Your task to perform on an android device: Search for seafood restaurants on Google Maps Image 0: 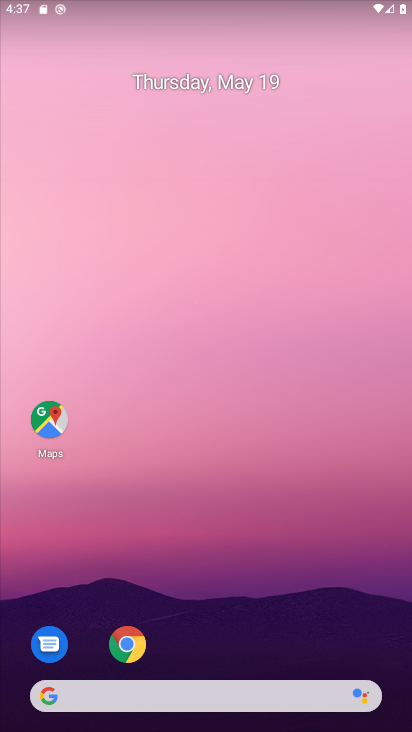
Step 0: press home button
Your task to perform on an android device: Search for seafood restaurants on Google Maps Image 1: 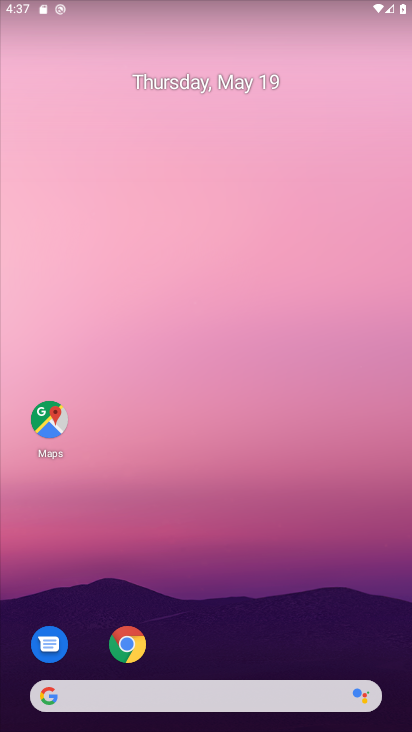
Step 1: click (132, 643)
Your task to perform on an android device: Search for seafood restaurants on Google Maps Image 2: 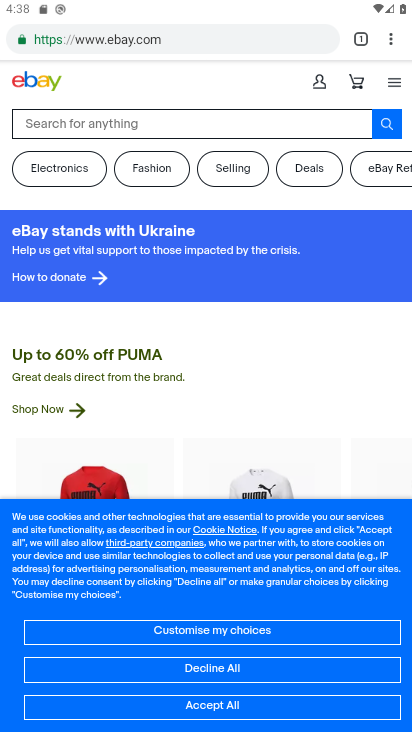
Step 2: press home button
Your task to perform on an android device: Search for seafood restaurants on Google Maps Image 3: 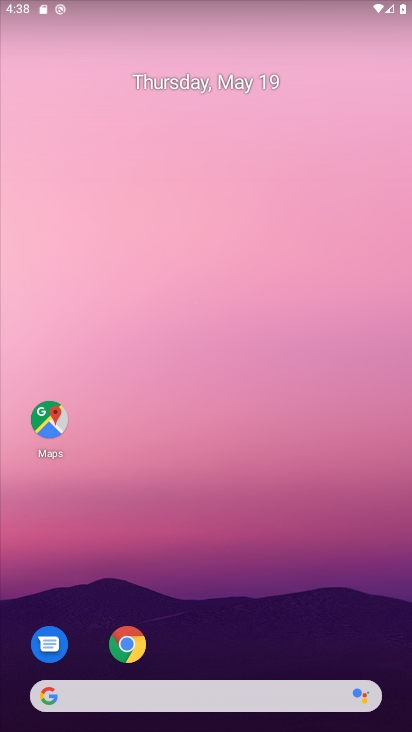
Step 3: click (35, 409)
Your task to perform on an android device: Search for seafood restaurants on Google Maps Image 4: 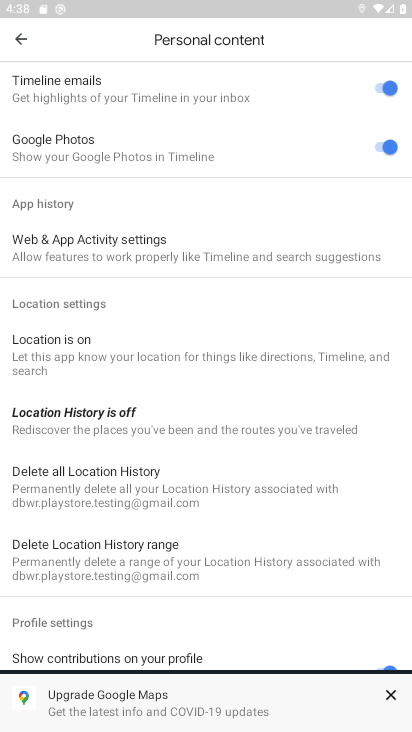
Step 4: click (22, 43)
Your task to perform on an android device: Search for seafood restaurants on Google Maps Image 5: 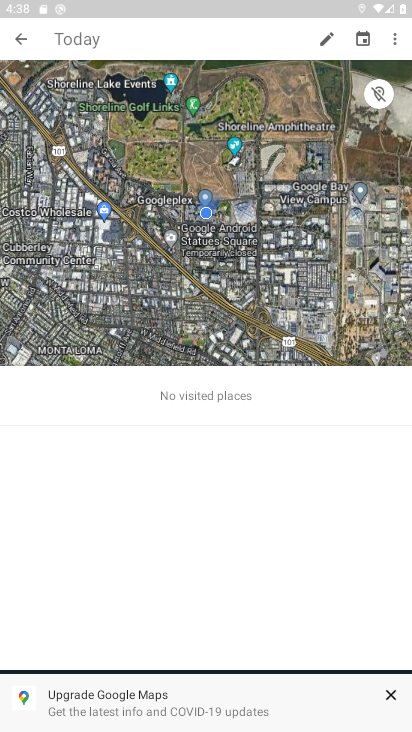
Step 5: click (22, 43)
Your task to perform on an android device: Search for seafood restaurants on Google Maps Image 6: 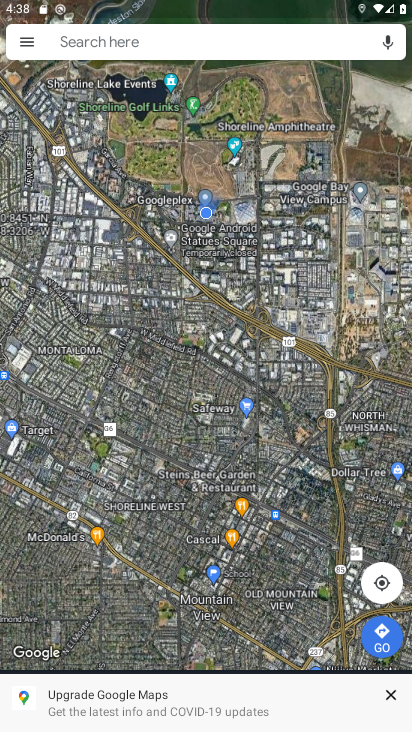
Step 6: click (127, 36)
Your task to perform on an android device: Search for seafood restaurants on Google Maps Image 7: 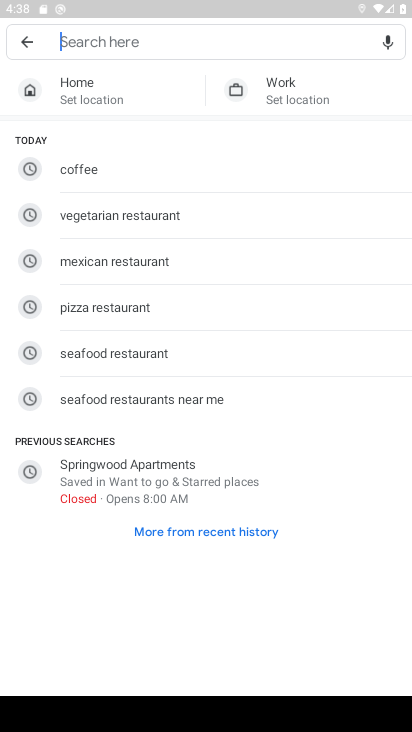
Step 7: type " seafood restaurants"
Your task to perform on an android device: Search for seafood restaurants on Google Maps Image 8: 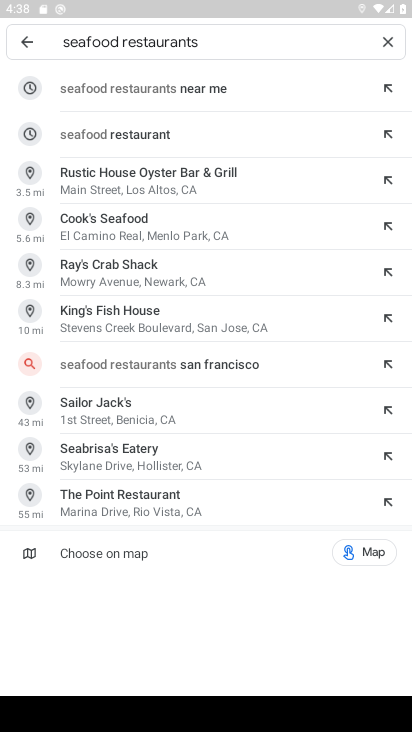
Step 8: click (124, 131)
Your task to perform on an android device: Search for seafood restaurants on Google Maps Image 9: 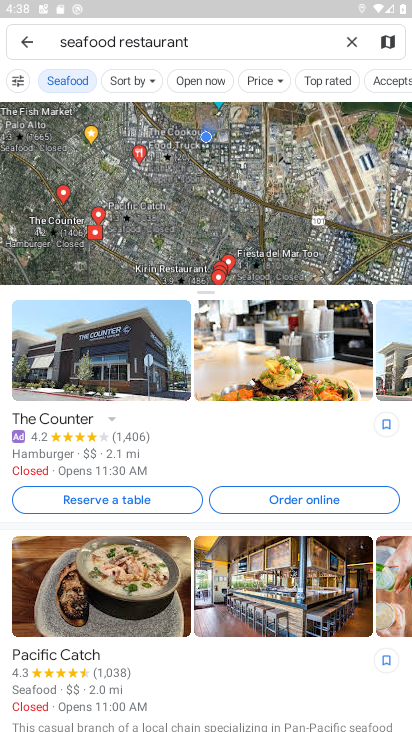
Step 9: task complete